Your task to perform on an android device: Open the web browser Image 0: 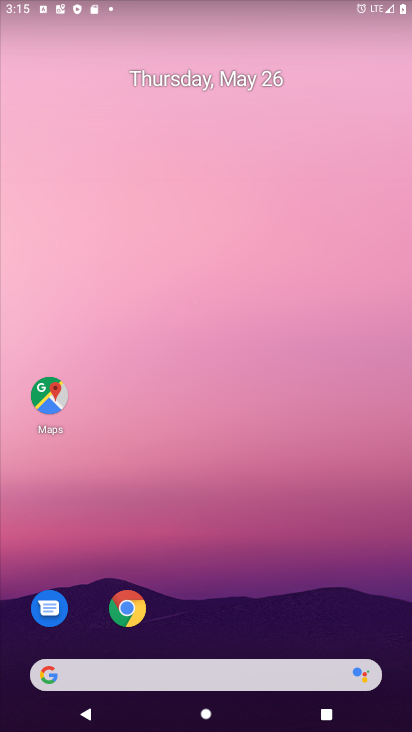
Step 0: click (125, 610)
Your task to perform on an android device: Open the web browser Image 1: 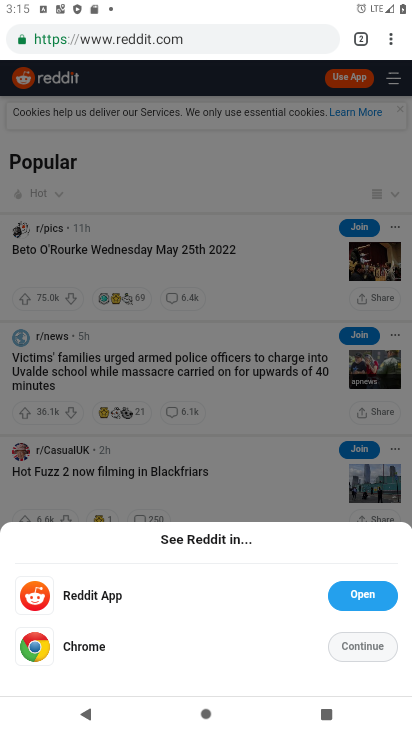
Step 1: task complete